Your task to perform on an android device: turn on bluetooth scan Image 0: 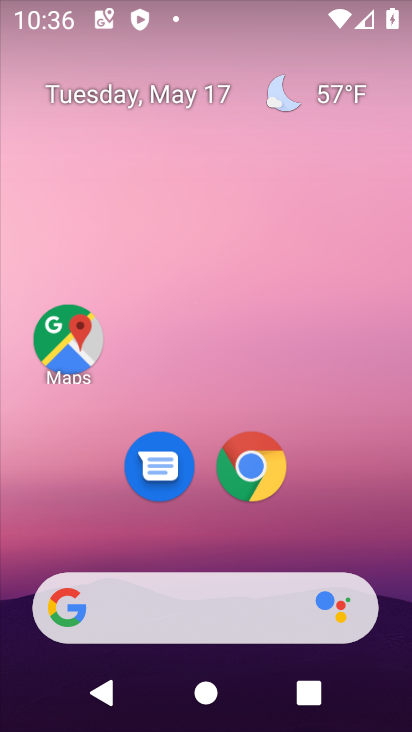
Step 0: drag from (97, 539) to (236, 69)
Your task to perform on an android device: turn on bluetooth scan Image 1: 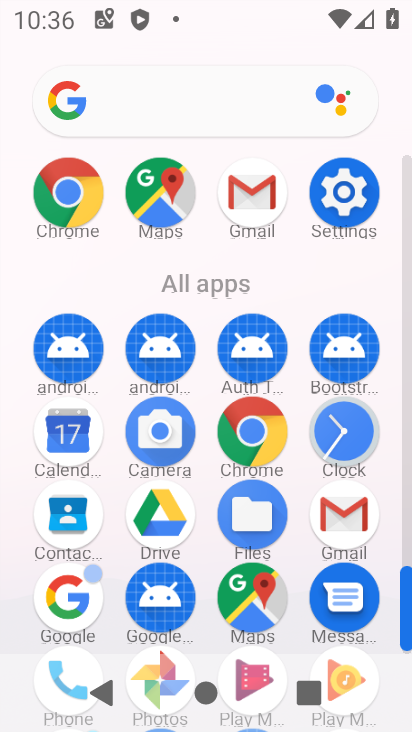
Step 1: drag from (196, 604) to (292, 289)
Your task to perform on an android device: turn on bluetooth scan Image 2: 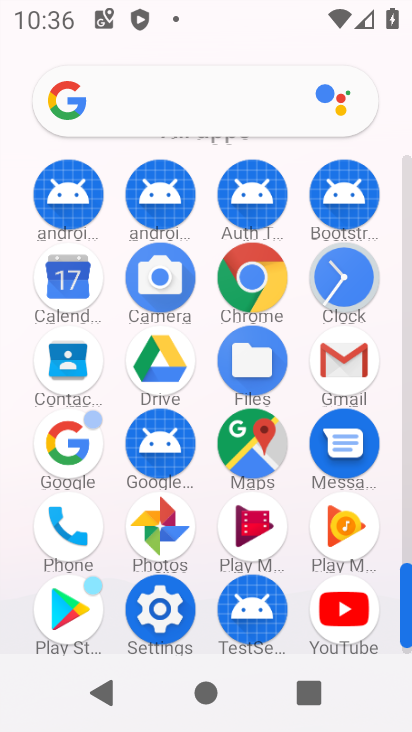
Step 2: click (174, 617)
Your task to perform on an android device: turn on bluetooth scan Image 3: 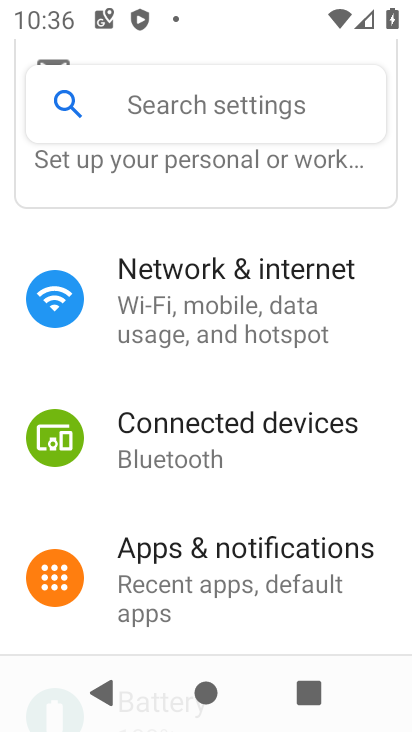
Step 3: click (228, 469)
Your task to perform on an android device: turn on bluetooth scan Image 4: 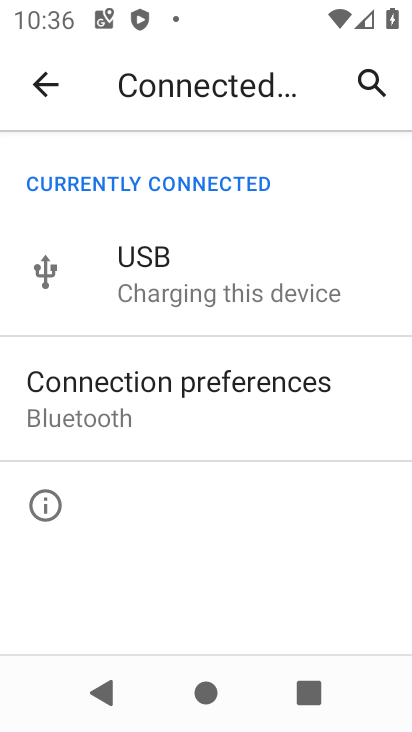
Step 4: click (256, 384)
Your task to perform on an android device: turn on bluetooth scan Image 5: 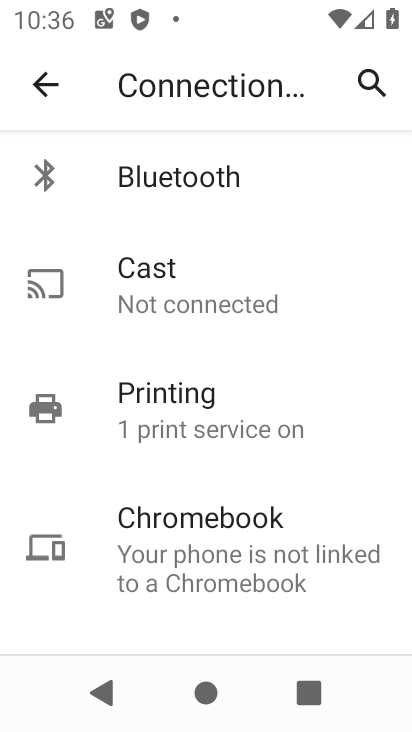
Step 5: click (262, 197)
Your task to perform on an android device: turn on bluetooth scan Image 6: 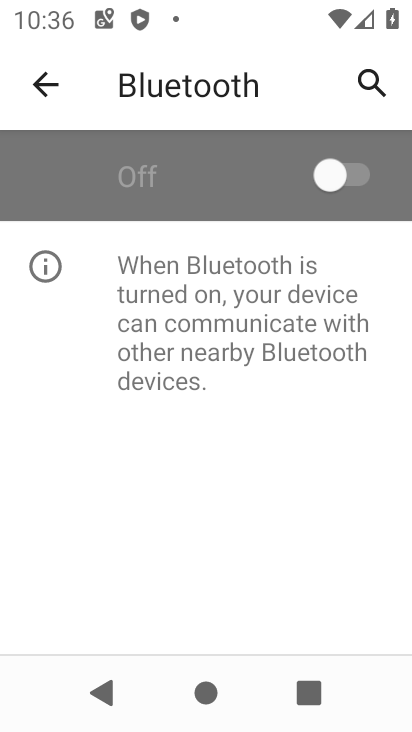
Step 6: click (399, 164)
Your task to perform on an android device: turn on bluetooth scan Image 7: 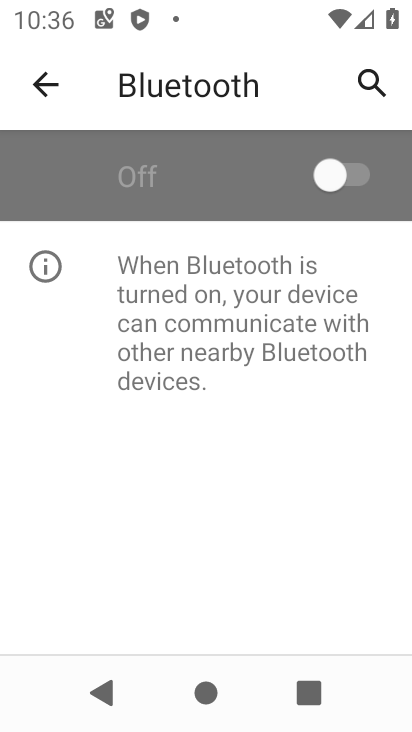
Step 7: click (400, 165)
Your task to perform on an android device: turn on bluetooth scan Image 8: 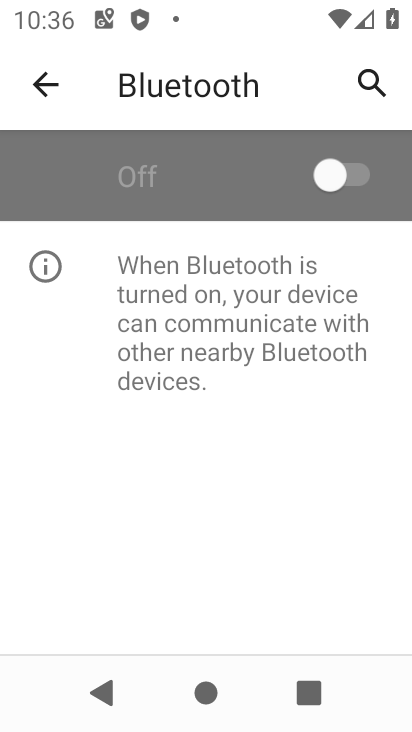
Step 8: click (398, 165)
Your task to perform on an android device: turn on bluetooth scan Image 9: 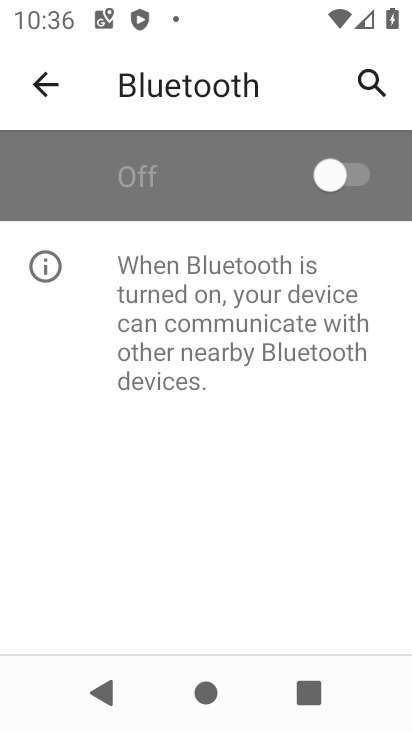
Step 9: click (398, 165)
Your task to perform on an android device: turn on bluetooth scan Image 10: 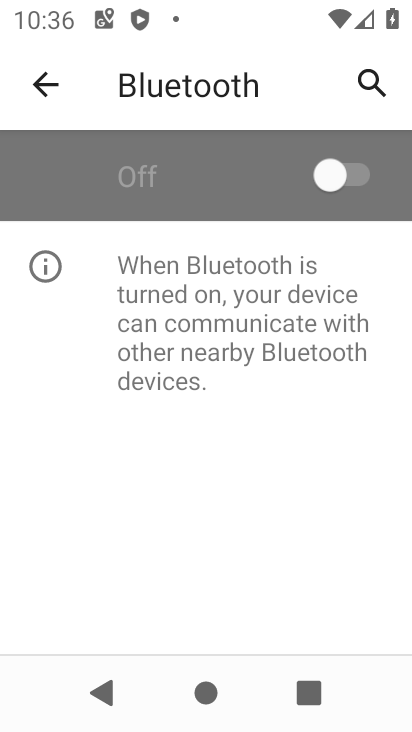
Step 10: task complete